Your task to perform on an android device: Go to Amazon Image 0: 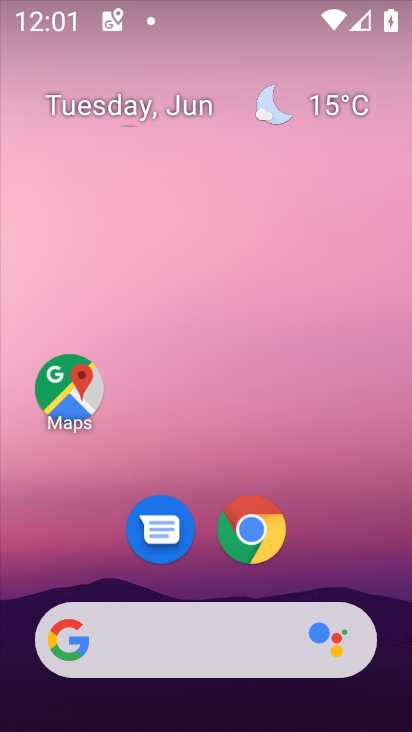
Step 0: click (274, 554)
Your task to perform on an android device: Go to Amazon Image 1: 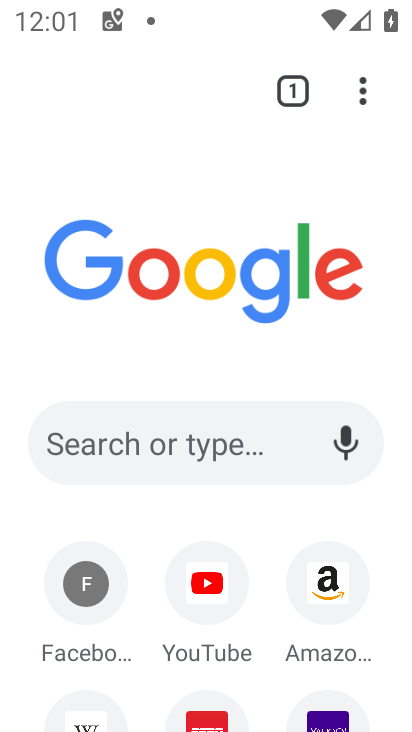
Step 1: click (324, 604)
Your task to perform on an android device: Go to Amazon Image 2: 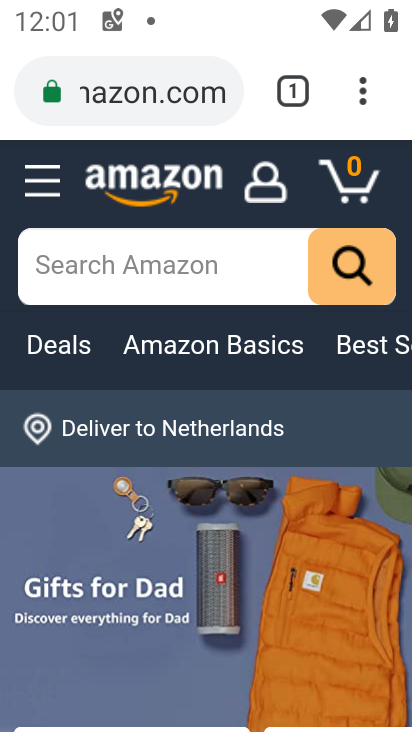
Step 2: task complete